Your task to perform on an android device: turn on notifications settings in the gmail app Image 0: 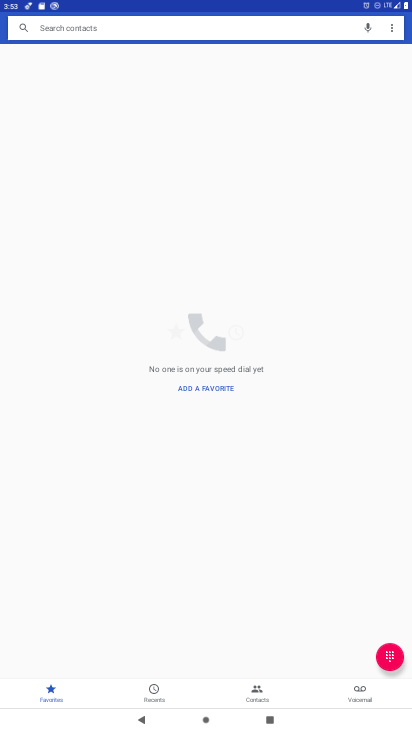
Step 0: press home button
Your task to perform on an android device: turn on notifications settings in the gmail app Image 1: 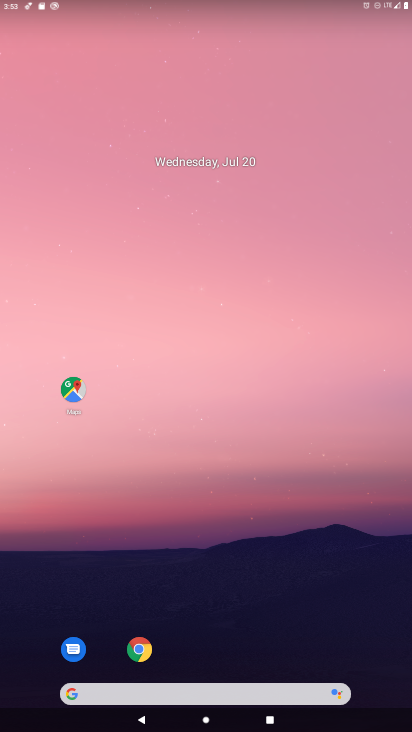
Step 1: drag from (247, 622) to (204, 57)
Your task to perform on an android device: turn on notifications settings in the gmail app Image 2: 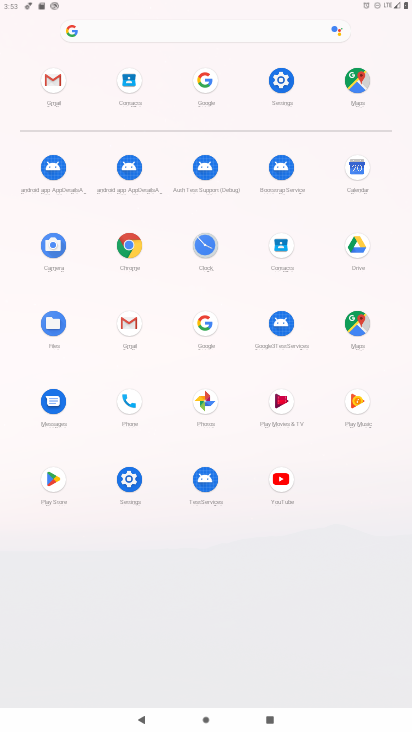
Step 2: click (52, 79)
Your task to perform on an android device: turn on notifications settings in the gmail app Image 3: 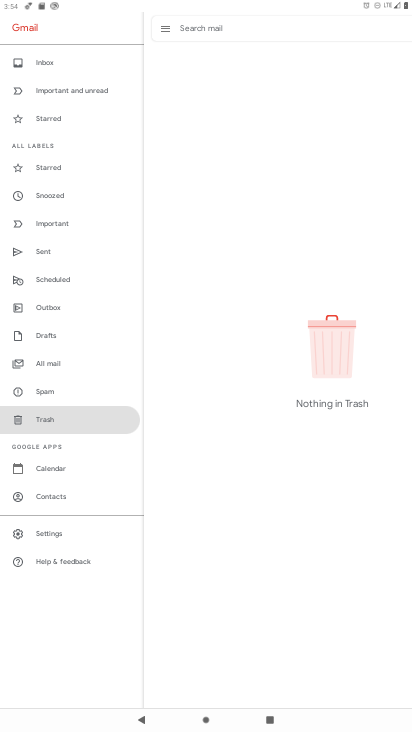
Step 3: click (52, 532)
Your task to perform on an android device: turn on notifications settings in the gmail app Image 4: 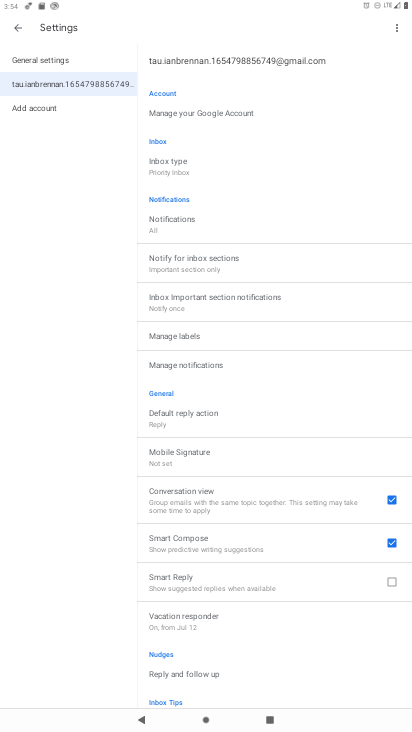
Step 4: click (182, 366)
Your task to perform on an android device: turn on notifications settings in the gmail app Image 5: 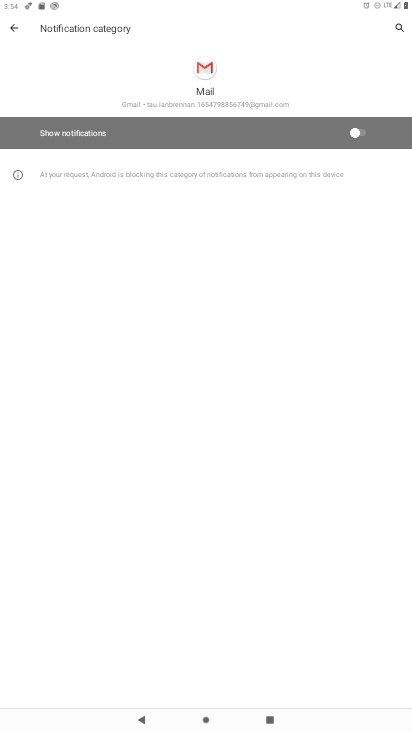
Step 5: click (355, 137)
Your task to perform on an android device: turn on notifications settings in the gmail app Image 6: 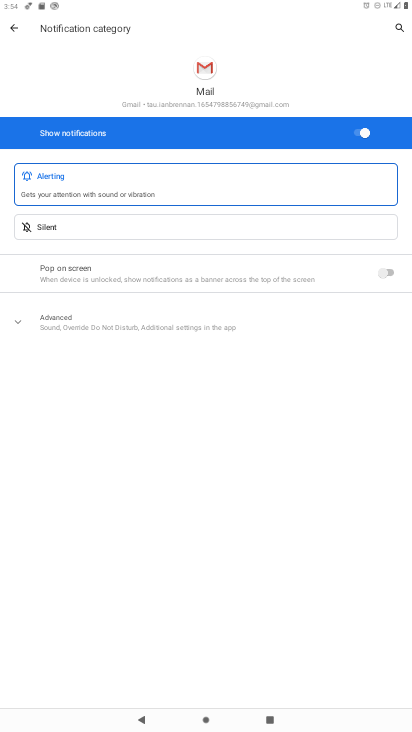
Step 6: task complete